Your task to perform on an android device: View the shopping cart on newegg. Search for energizer triple a on newegg, select the first entry, add it to the cart, then select checkout. Image 0: 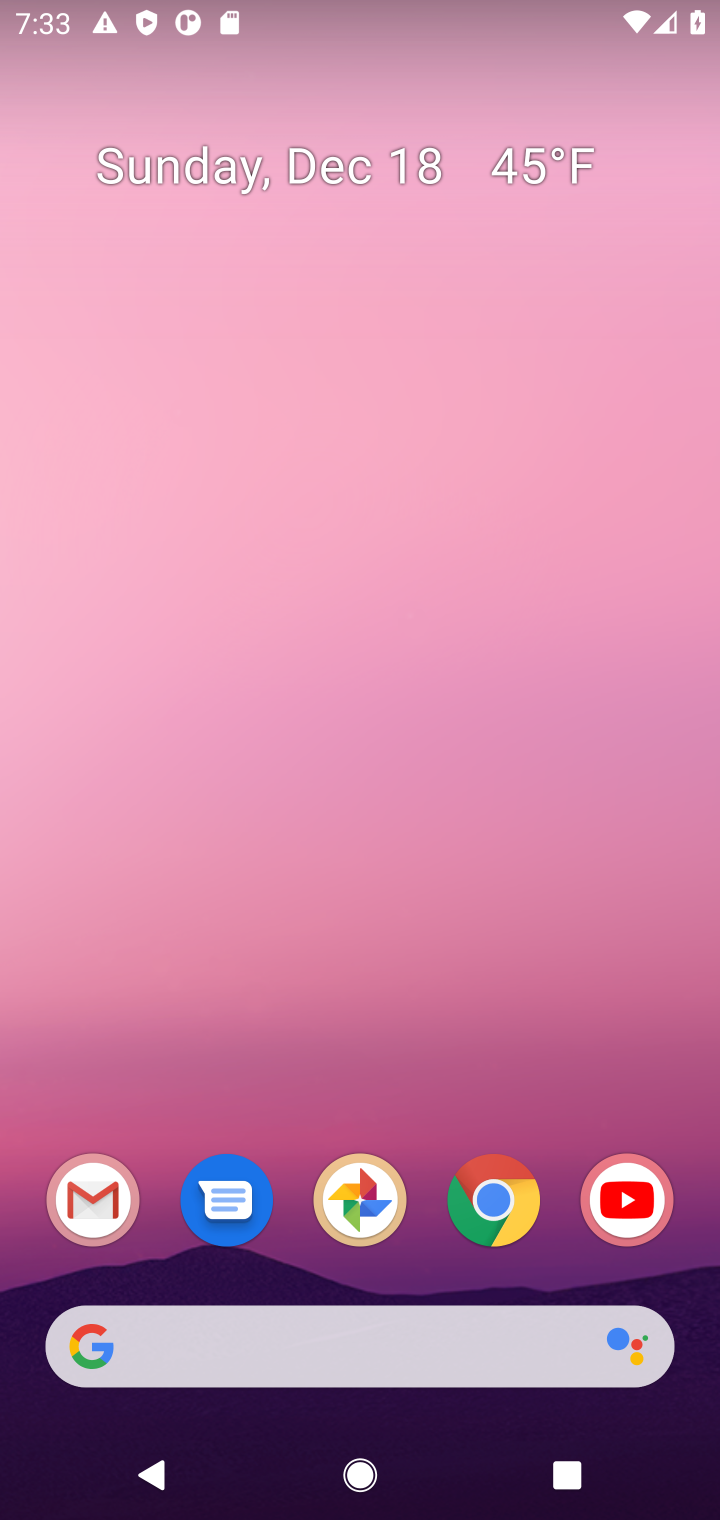
Step 0: click (504, 1206)
Your task to perform on an android device: View the shopping cart on newegg. Search for energizer triple a on newegg, select the first entry, add it to the cart, then select checkout. Image 1: 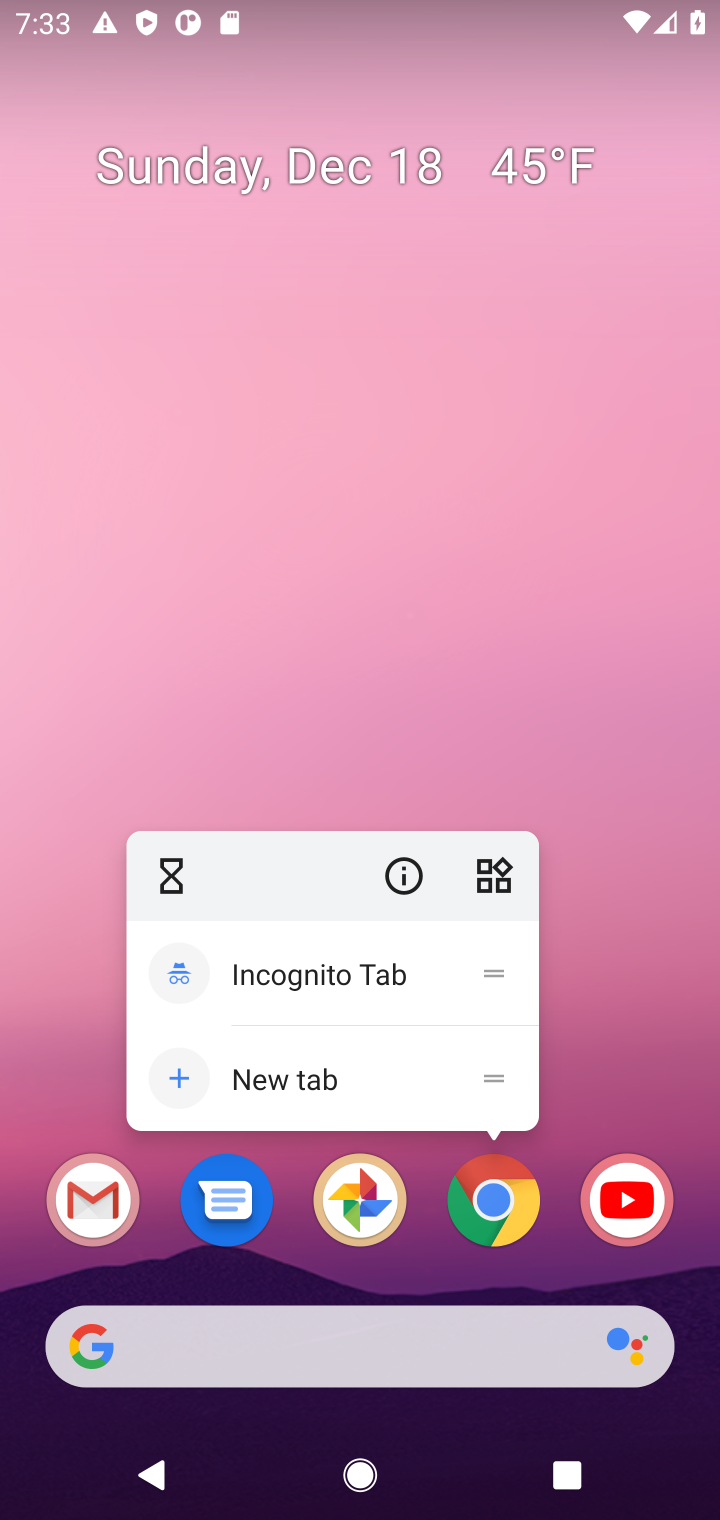
Step 1: click (504, 1206)
Your task to perform on an android device: View the shopping cart on newegg. Search for energizer triple a on newegg, select the first entry, add it to the cart, then select checkout. Image 2: 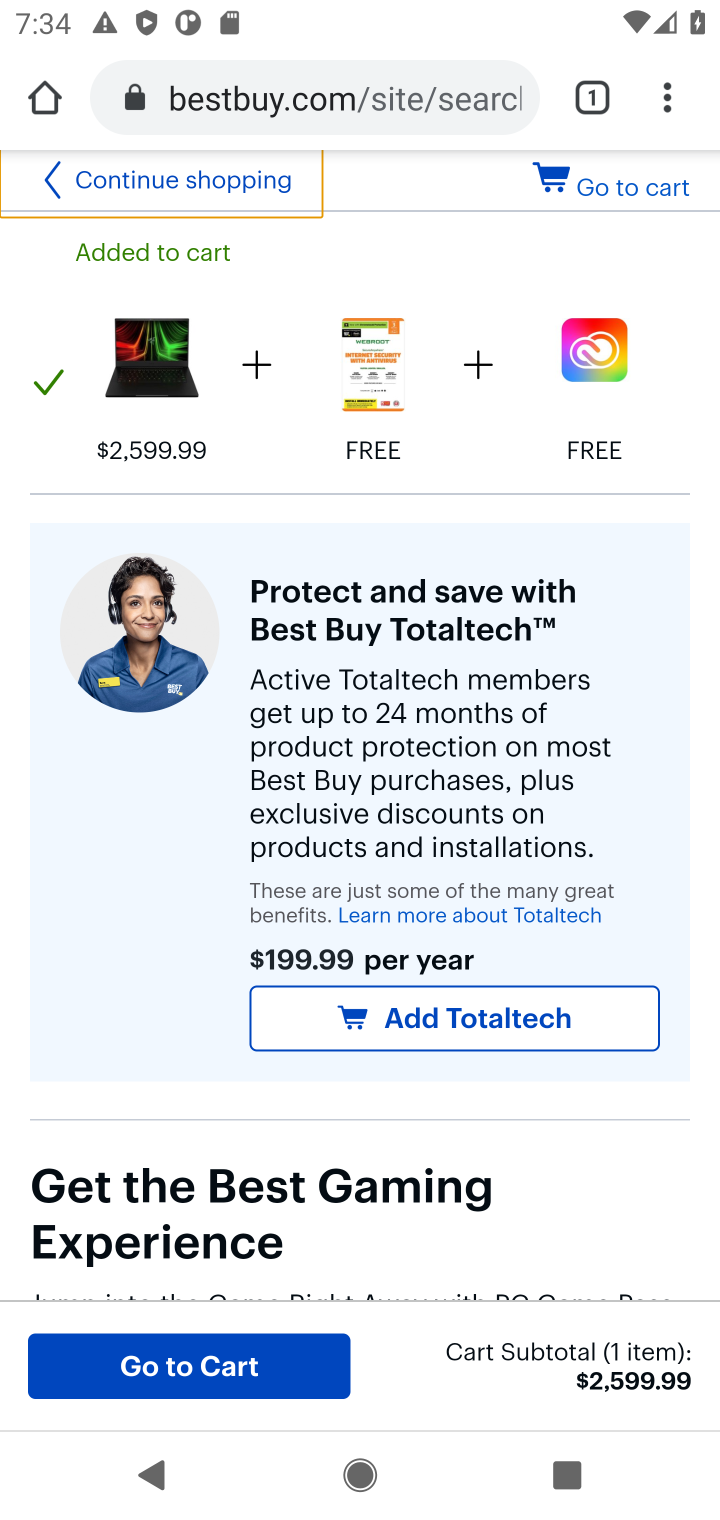
Step 2: click (333, 92)
Your task to perform on an android device: View the shopping cart on newegg. Search for energizer triple a on newegg, select the first entry, add it to the cart, then select checkout. Image 3: 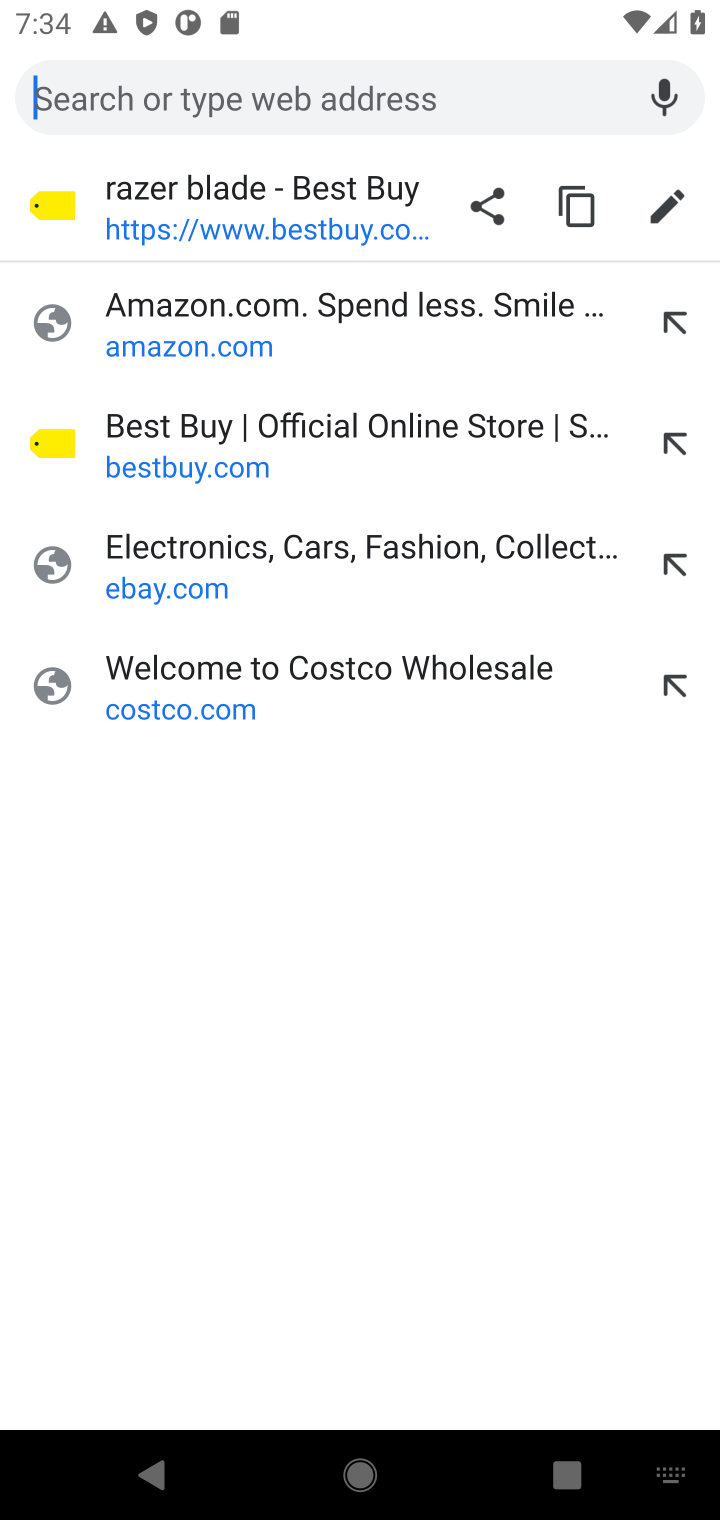
Step 3: type "newegg.com"
Your task to perform on an android device: View the shopping cart on newegg. Search for energizer triple a on newegg, select the first entry, add it to the cart, then select checkout. Image 4: 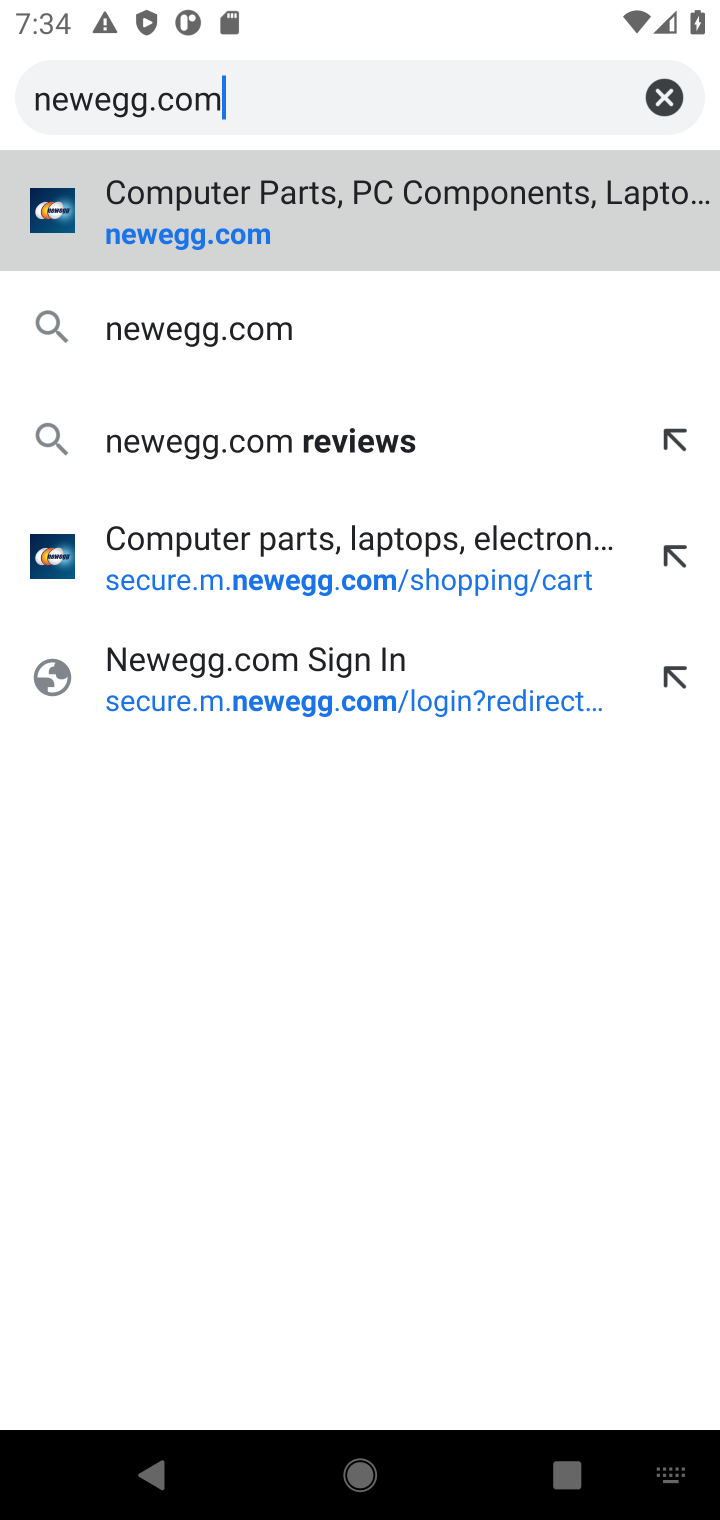
Step 4: click (178, 250)
Your task to perform on an android device: View the shopping cart on newegg. Search for energizer triple a on newegg, select the first entry, add it to the cart, then select checkout. Image 5: 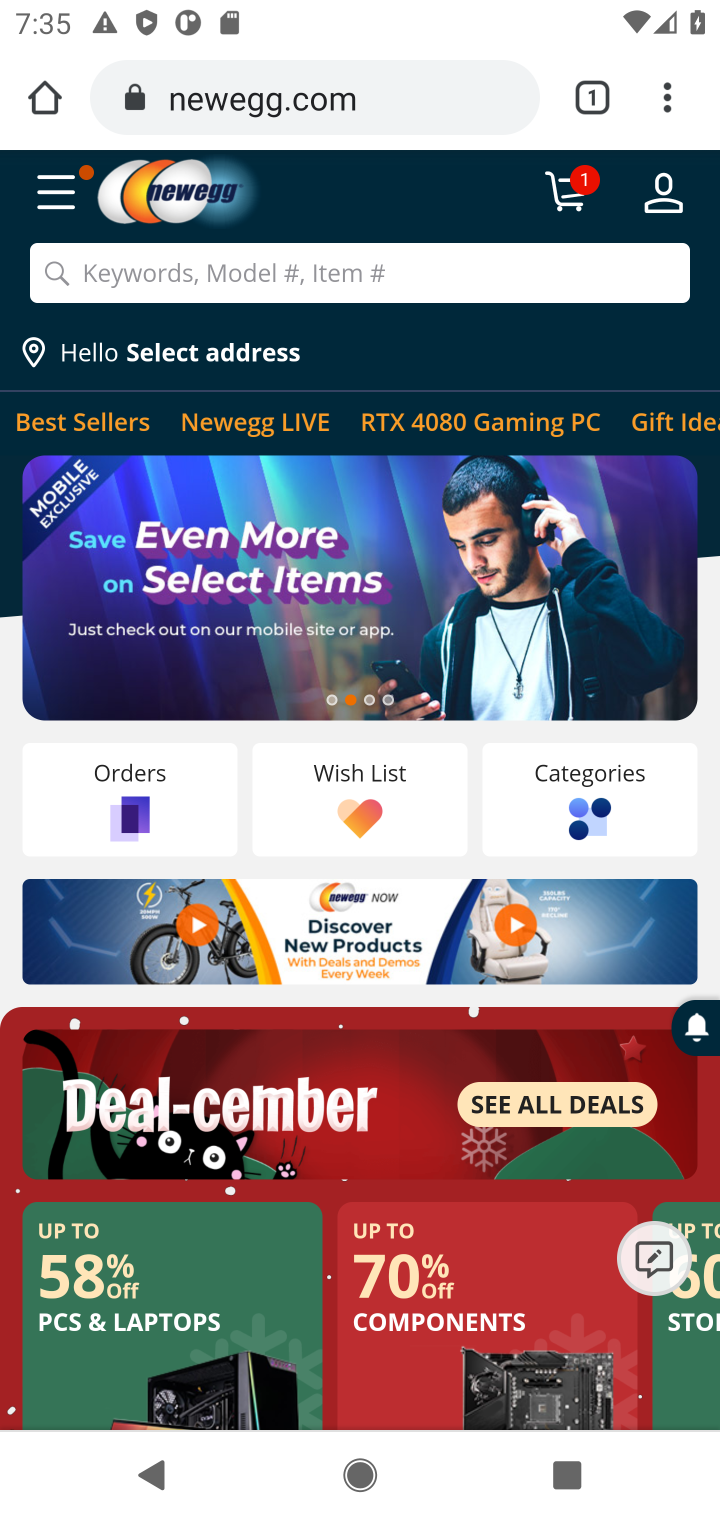
Step 5: click (570, 191)
Your task to perform on an android device: View the shopping cart on newegg. Search for energizer triple a on newegg, select the first entry, add it to the cart, then select checkout. Image 6: 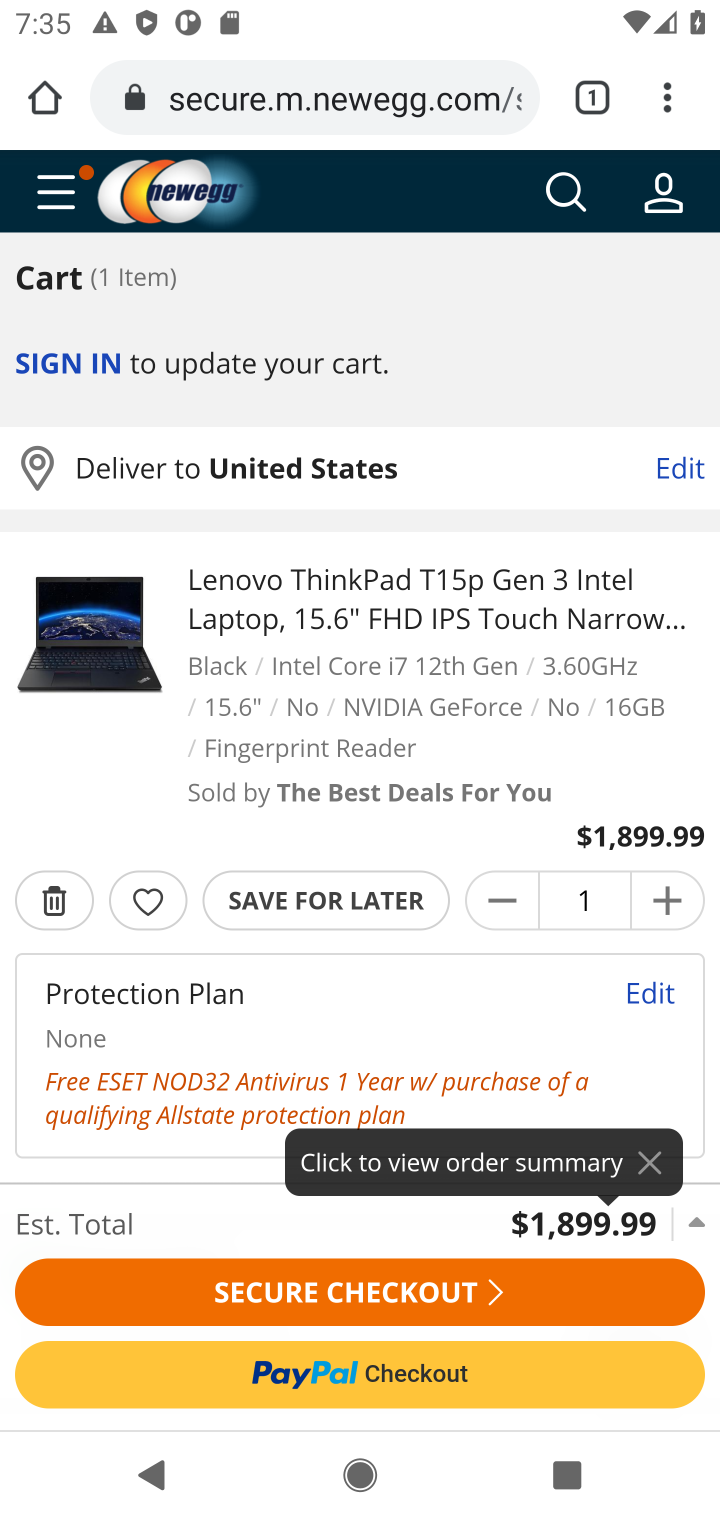
Step 6: click (544, 189)
Your task to perform on an android device: View the shopping cart on newegg. Search for energizer triple a on newegg, select the first entry, add it to the cart, then select checkout. Image 7: 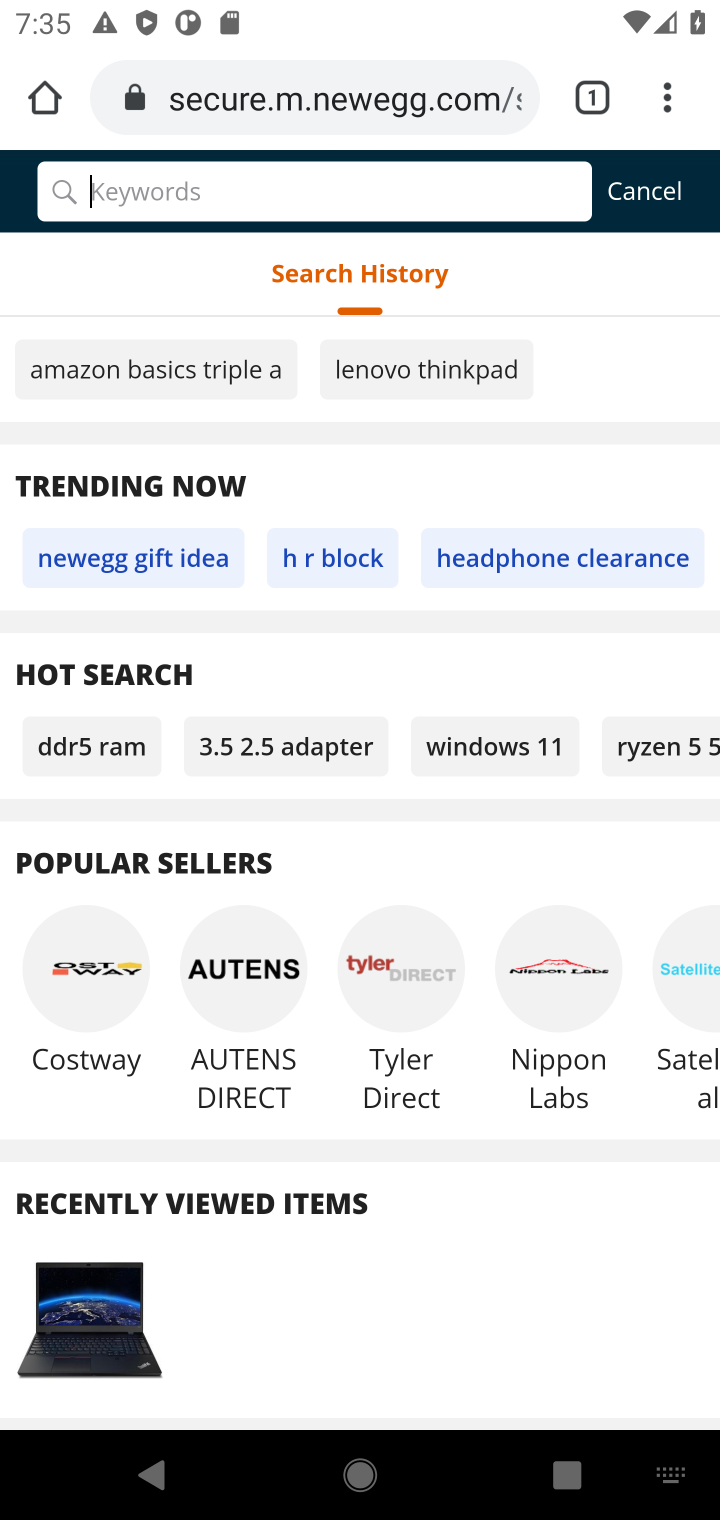
Step 7: type "energizer triple a"
Your task to perform on an android device: View the shopping cart on newegg. Search for energizer triple a on newegg, select the first entry, add it to the cart, then select checkout. Image 8: 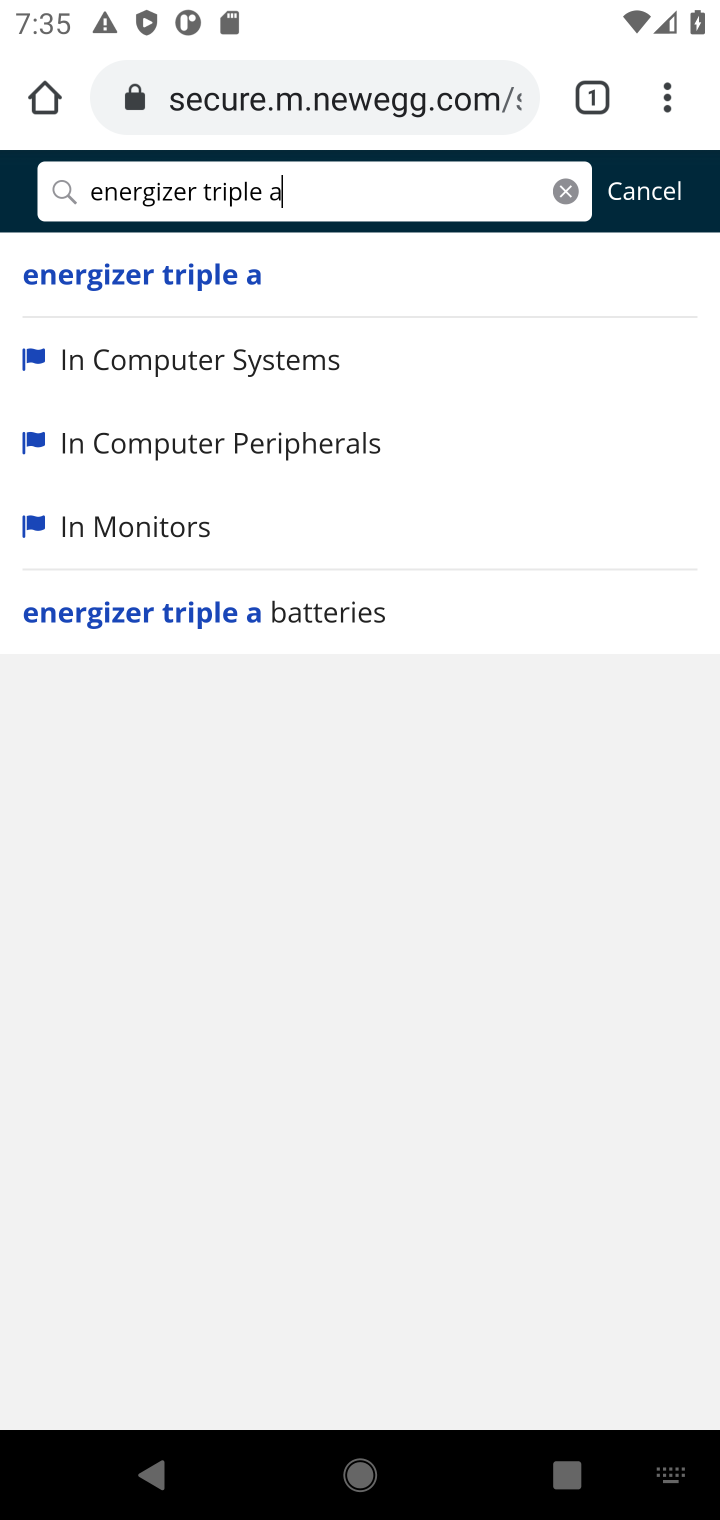
Step 8: click (138, 294)
Your task to perform on an android device: View the shopping cart on newegg. Search for energizer triple a on newegg, select the first entry, add it to the cart, then select checkout. Image 9: 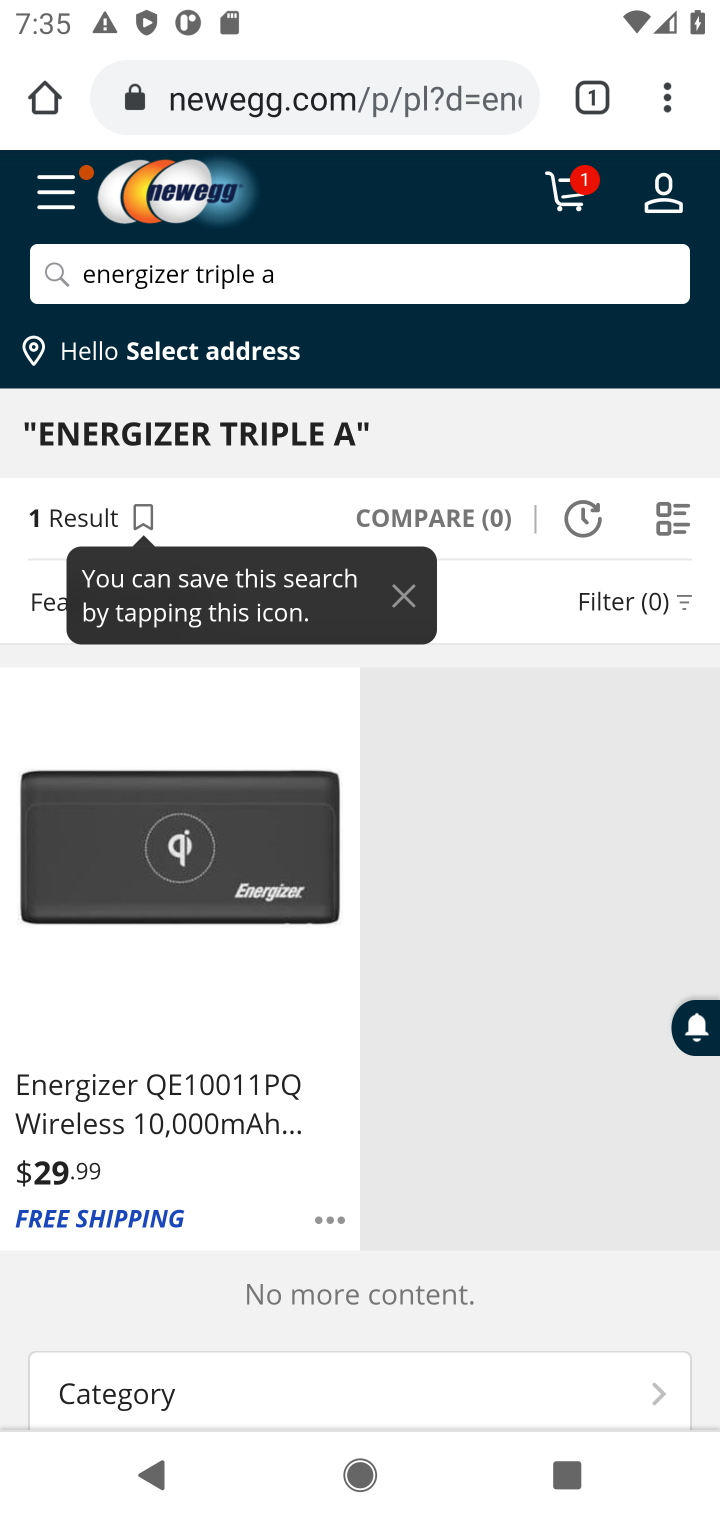
Step 9: click (179, 1090)
Your task to perform on an android device: View the shopping cart on newegg. Search for energizer triple a on newegg, select the first entry, add it to the cart, then select checkout. Image 10: 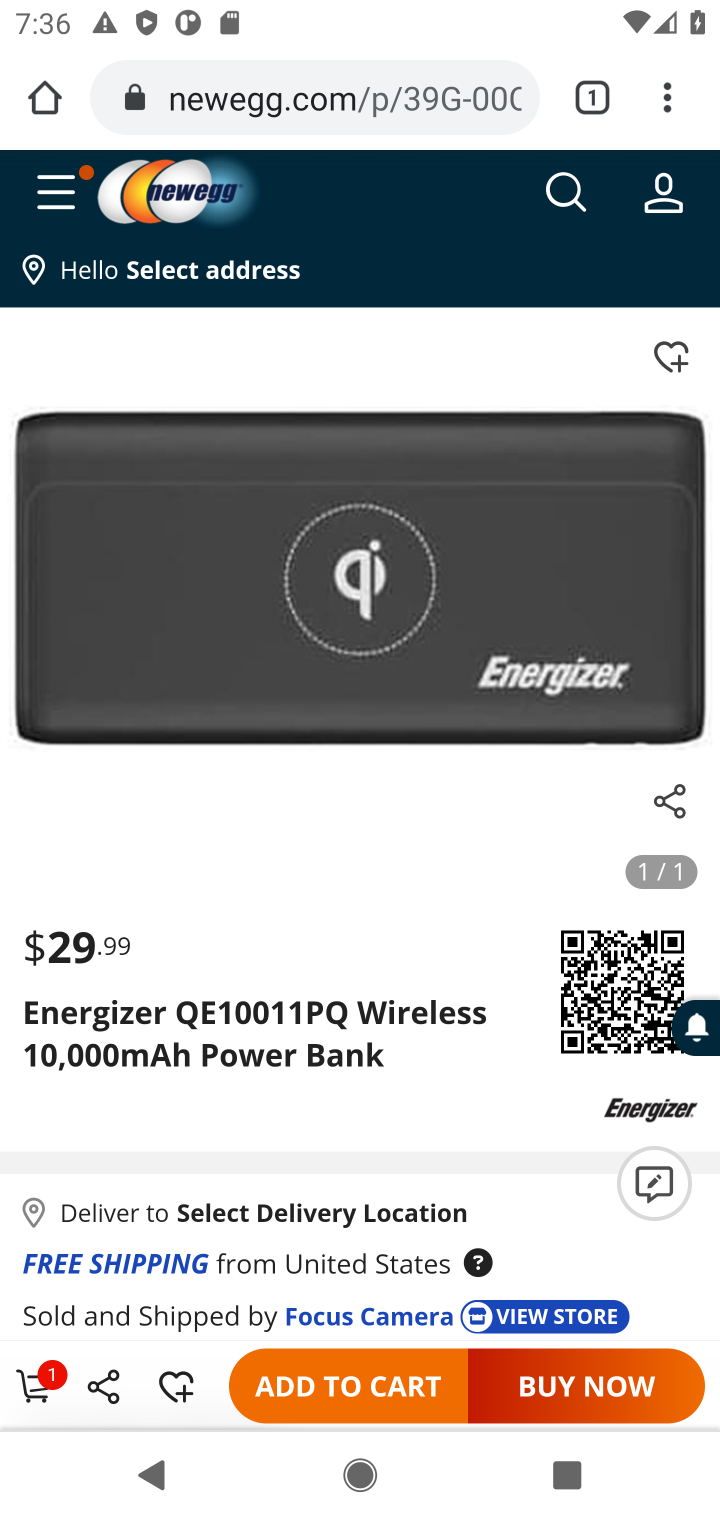
Step 10: task complete